Your task to perform on an android device: Open the stopwatch Image 0: 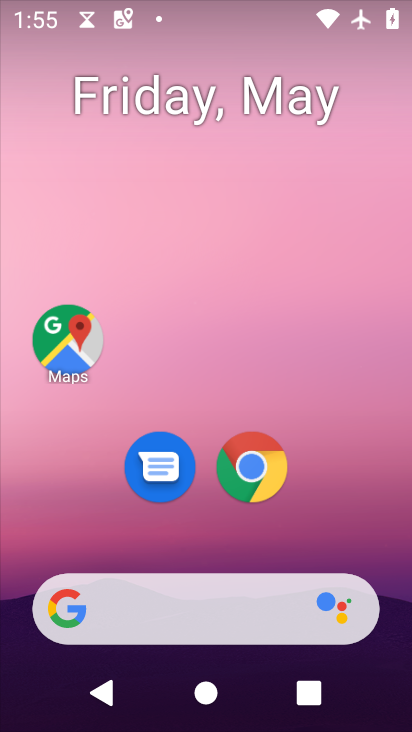
Step 0: drag from (341, 534) to (316, 87)
Your task to perform on an android device: Open the stopwatch Image 1: 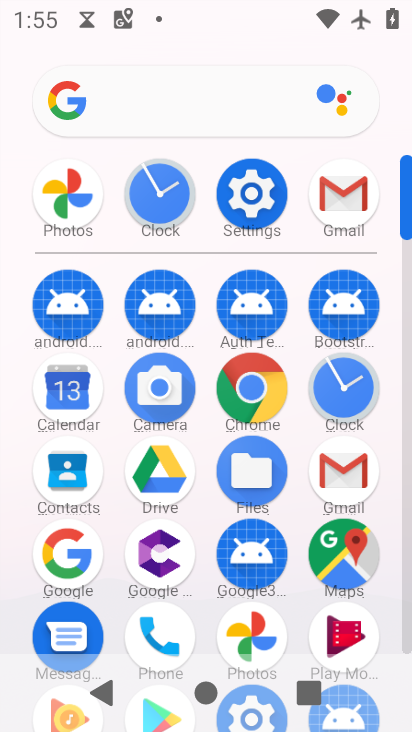
Step 1: click (336, 386)
Your task to perform on an android device: Open the stopwatch Image 2: 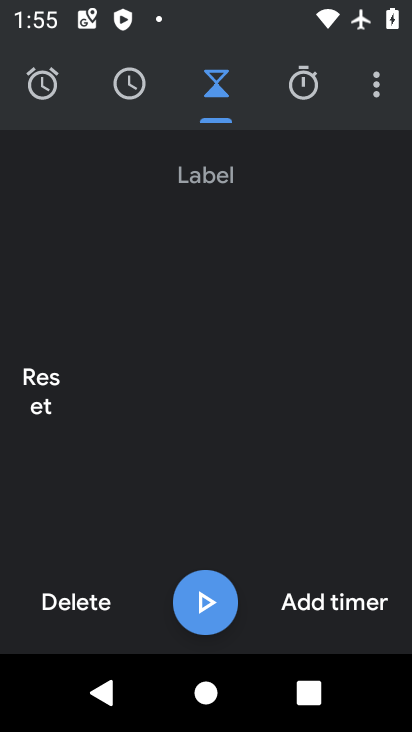
Step 2: click (305, 80)
Your task to perform on an android device: Open the stopwatch Image 3: 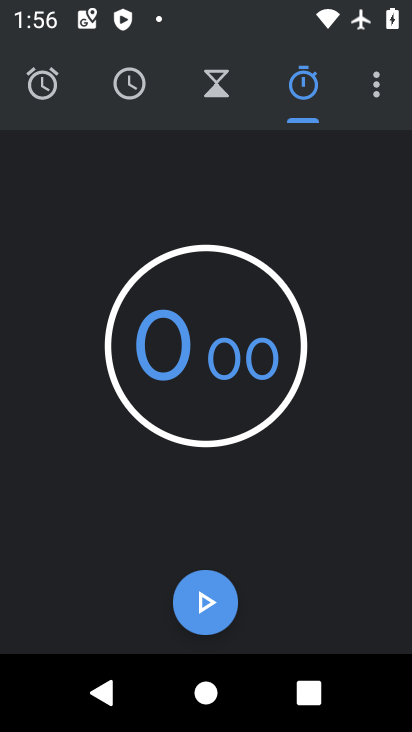
Step 3: task complete